Your task to perform on an android device: add a label to a message in the gmail app Image 0: 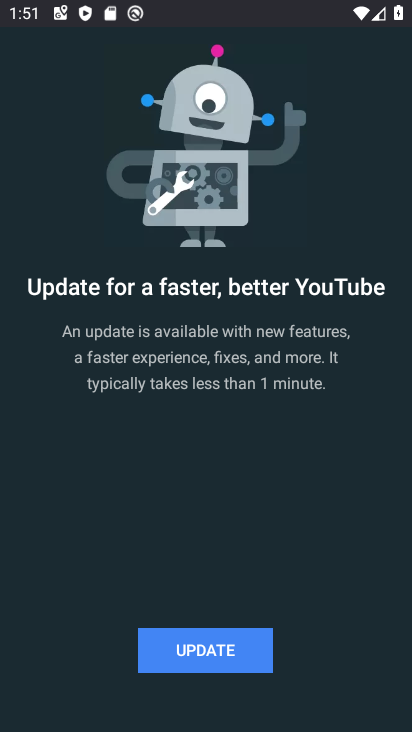
Step 0: press home button
Your task to perform on an android device: add a label to a message in the gmail app Image 1: 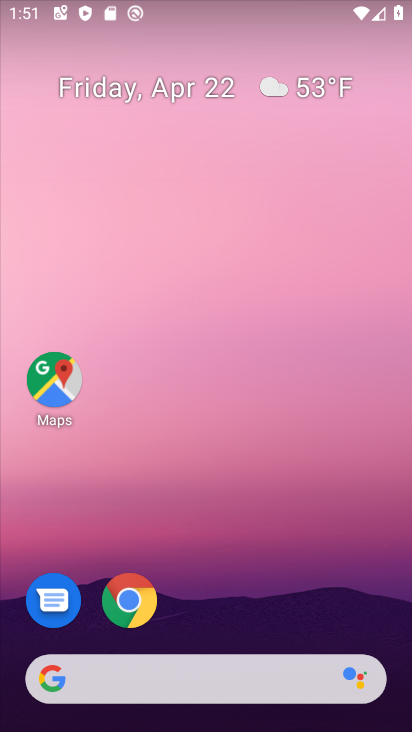
Step 1: drag from (207, 727) to (205, 132)
Your task to perform on an android device: add a label to a message in the gmail app Image 2: 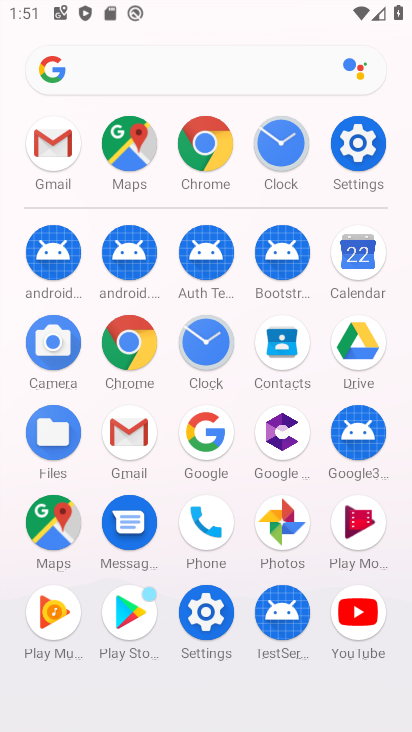
Step 2: click (127, 432)
Your task to perform on an android device: add a label to a message in the gmail app Image 3: 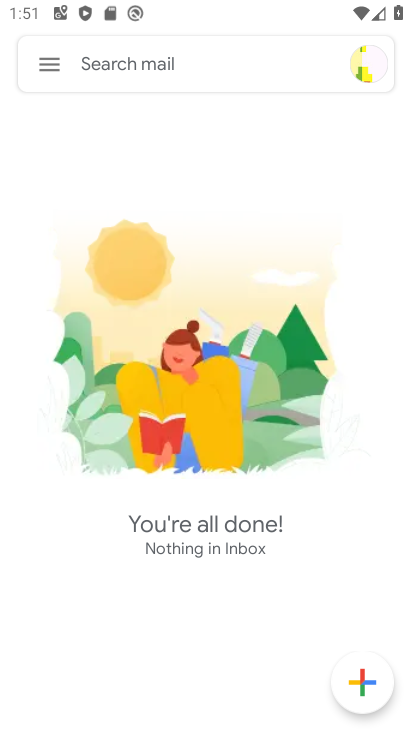
Step 3: task complete